Your task to perform on an android device: check the backup settings in the google photos Image 0: 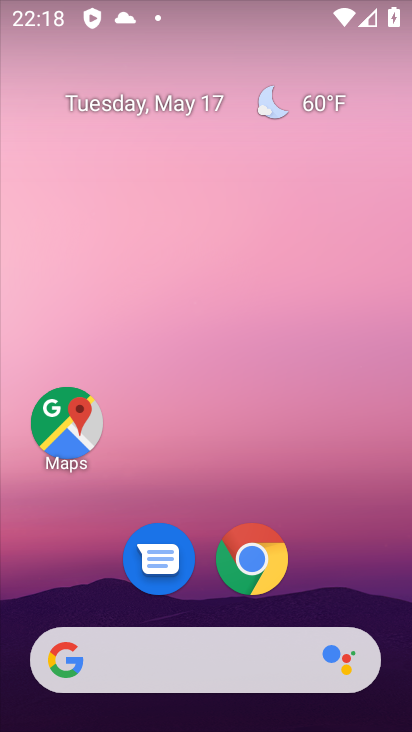
Step 0: drag from (350, 585) to (352, 114)
Your task to perform on an android device: check the backup settings in the google photos Image 1: 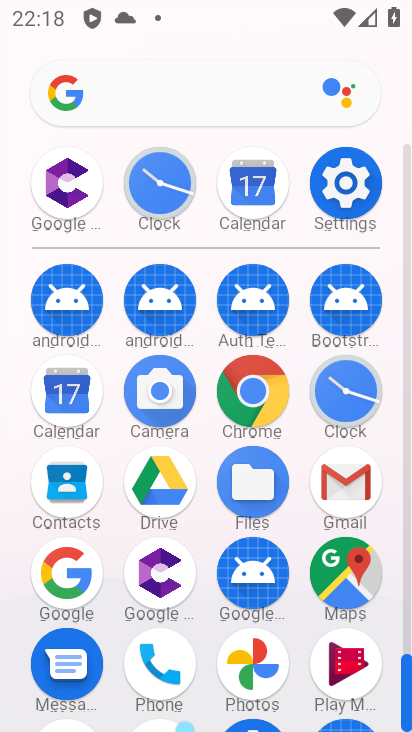
Step 1: click (257, 649)
Your task to perform on an android device: check the backup settings in the google photos Image 2: 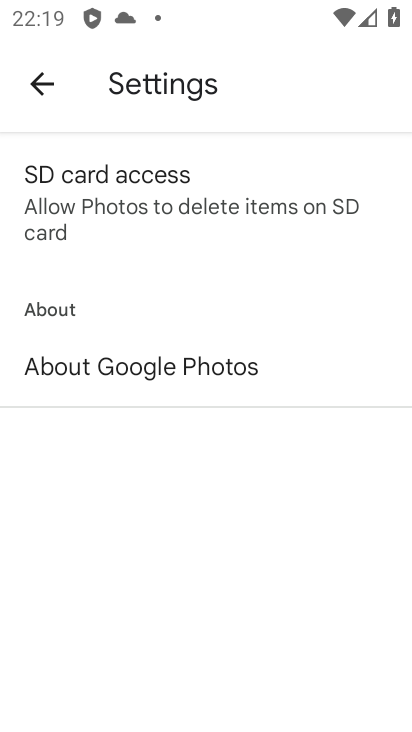
Step 2: click (43, 87)
Your task to perform on an android device: check the backup settings in the google photos Image 3: 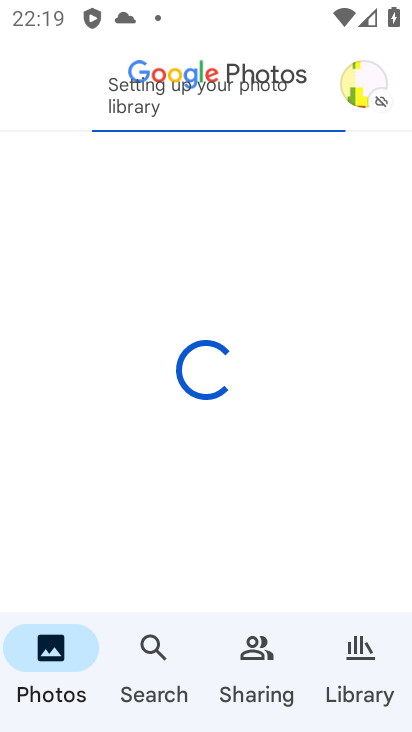
Step 3: click (356, 75)
Your task to perform on an android device: check the backup settings in the google photos Image 4: 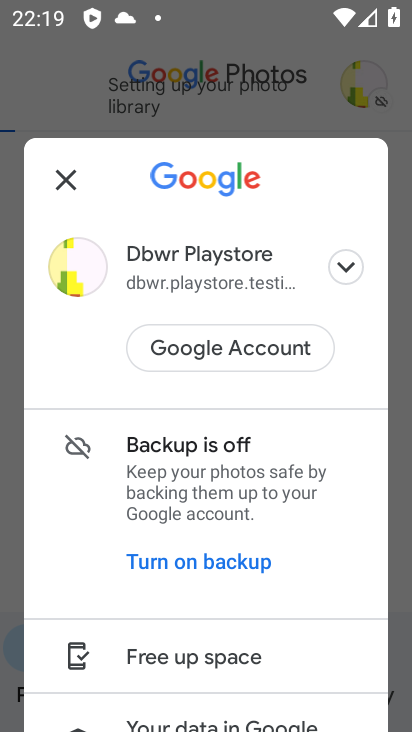
Step 4: drag from (190, 591) to (354, 224)
Your task to perform on an android device: check the backup settings in the google photos Image 5: 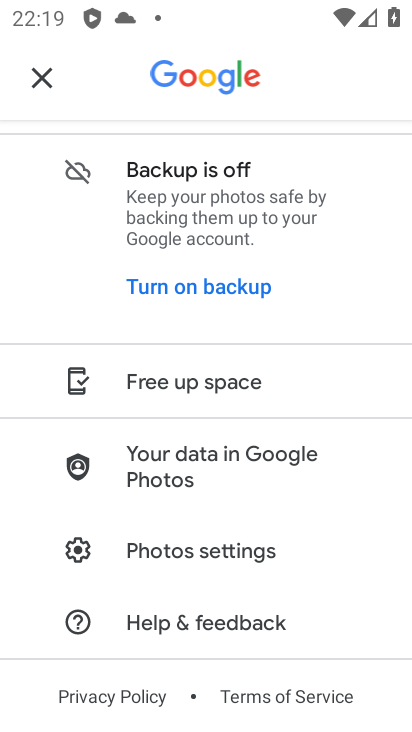
Step 5: click (162, 555)
Your task to perform on an android device: check the backup settings in the google photos Image 6: 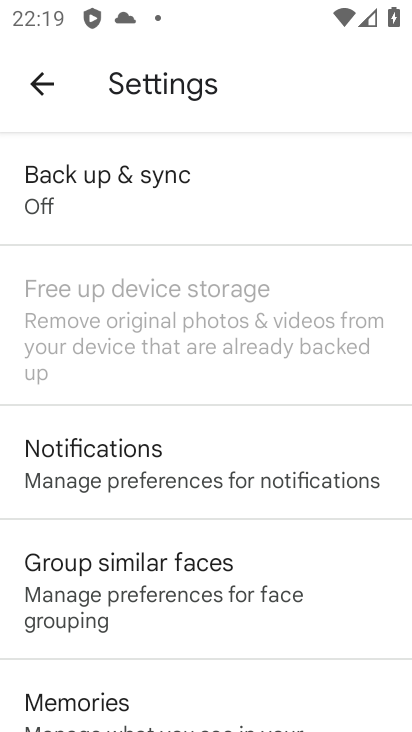
Step 6: click (153, 202)
Your task to perform on an android device: check the backup settings in the google photos Image 7: 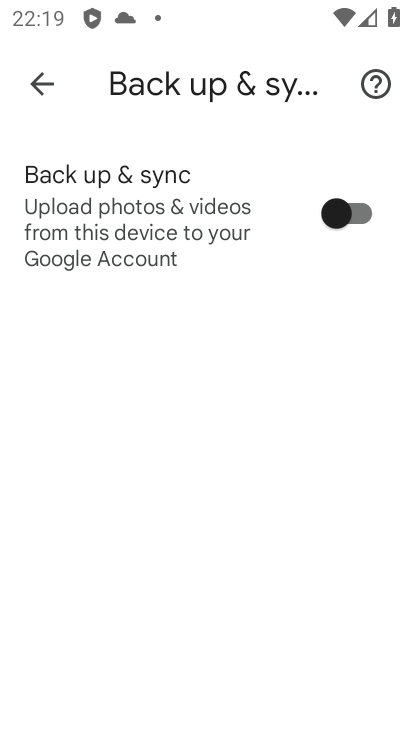
Step 7: click (160, 201)
Your task to perform on an android device: check the backup settings in the google photos Image 8: 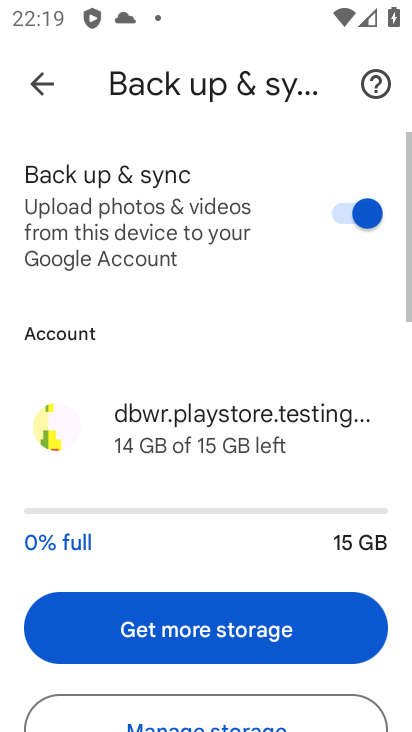
Step 8: task complete